Your task to perform on an android device: Open the stopwatch Image 0: 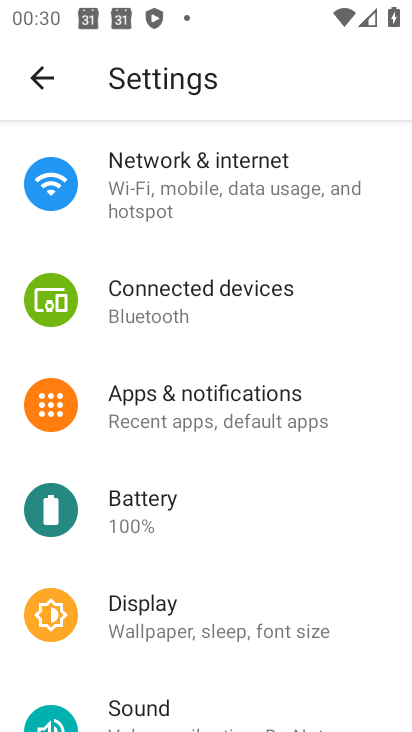
Step 0: press home button
Your task to perform on an android device: Open the stopwatch Image 1: 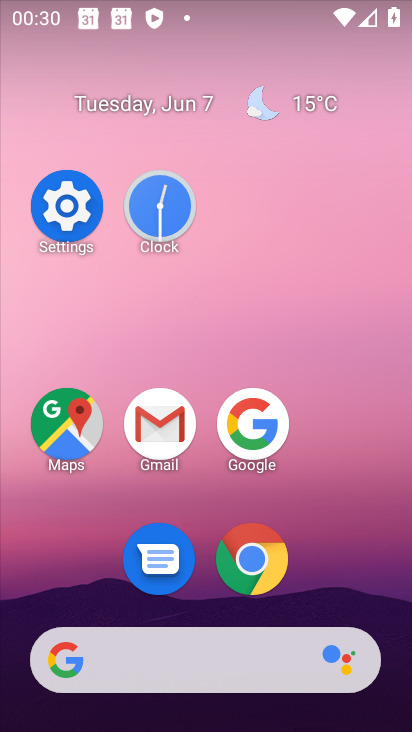
Step 1: click (152, 228)
Your task to perform on an android device: Open the stopwatch Image 2: 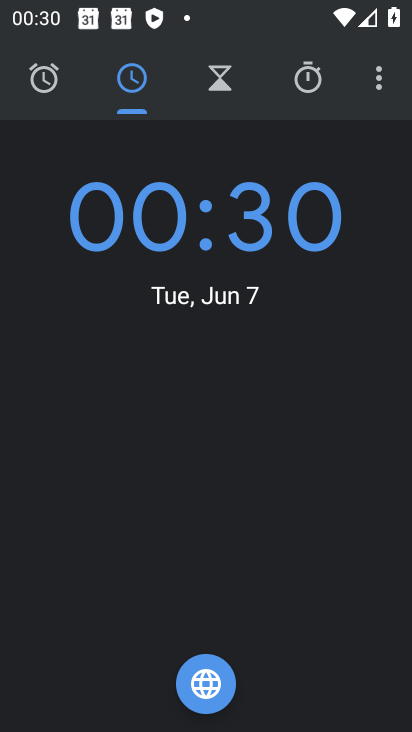
Step 2: click (322, 93)
Your task to perform on an android device: Open the stopwatch Image 3: 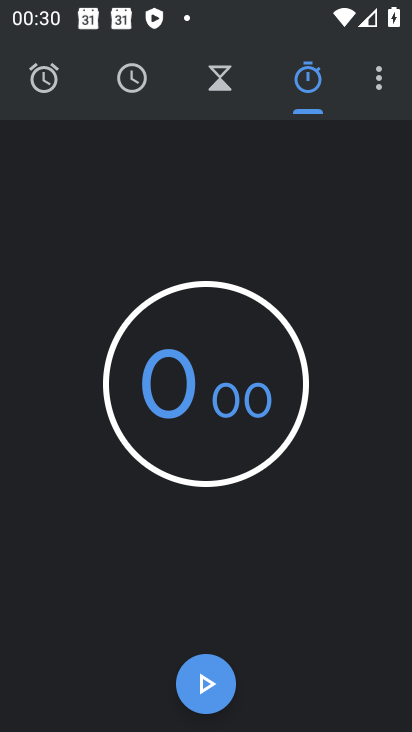
Step 3: task complete